Your task to perform on an android device: Play the last video I watched on Youtube Image 0: 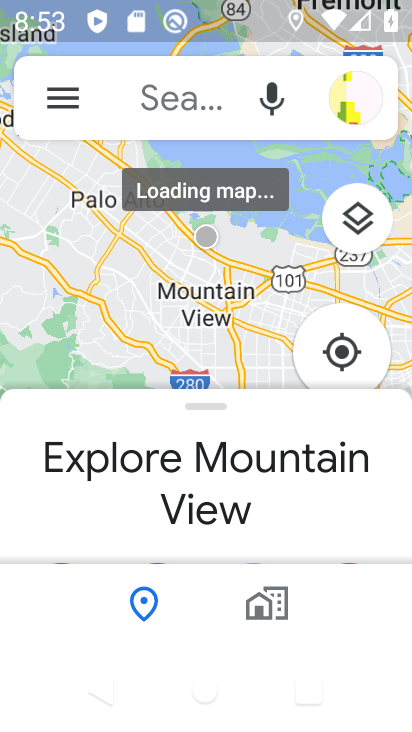
Step 0: press home button
Your task to perform on an android device: Play the last video I watched on Youtube Image 1: 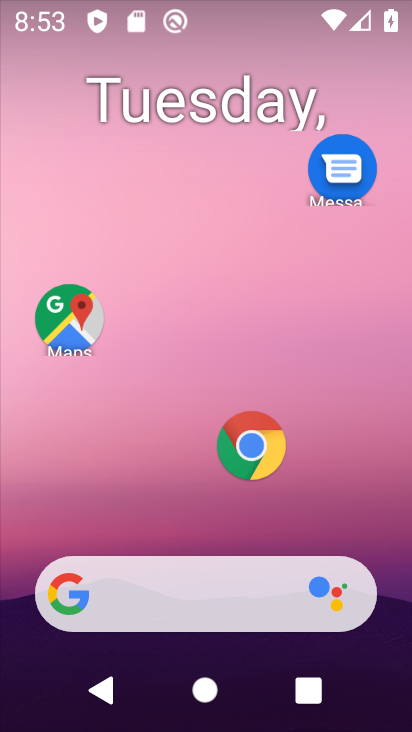
Step 1: drag from (2, 719) to (162, 262)
Your task to perform on an android device: Play the last video I watched on Youtube Image 2: 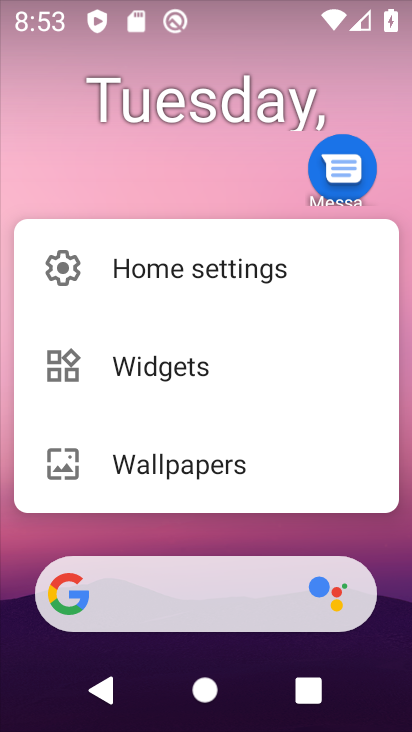
Step 2: drag from (2, 675) to (218, 270)
Your task to perform on an android device: Play the last video I watched on Youtube Image 3: 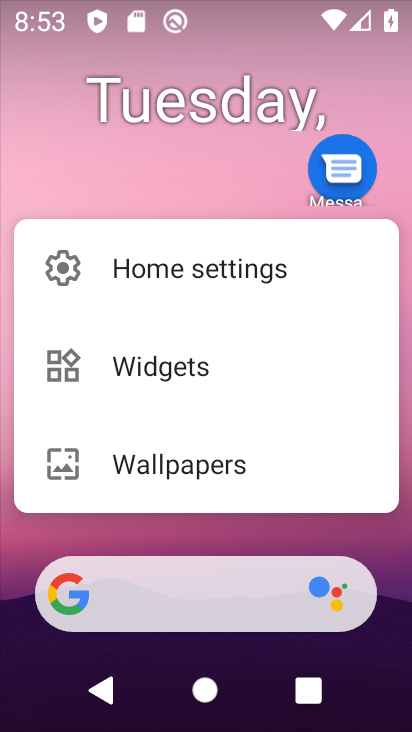
Step 3: press back button
Your task to perform on an android device: Play the last video I watched on Youtube Image 4: 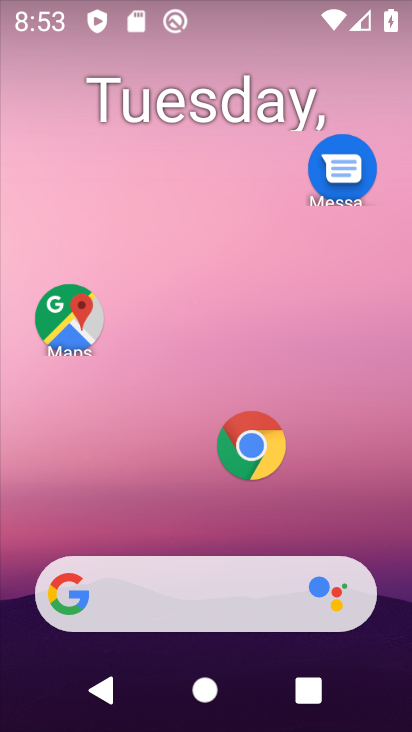
Step 4: drag from (19, 643) to (273, 115)
Your task to perform on an android device: Play the last video I watched on Youtube Image 5: 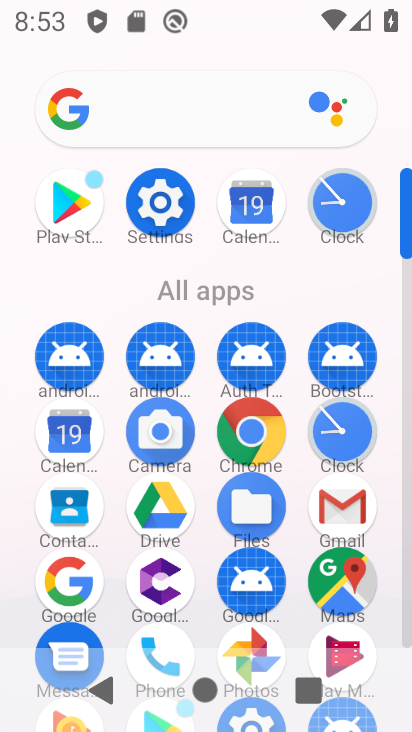
Step 5: drag from (42, 666) to (158, 271)
Your task to perform on an android device: Play the last video I watched on Youtube Image 6: 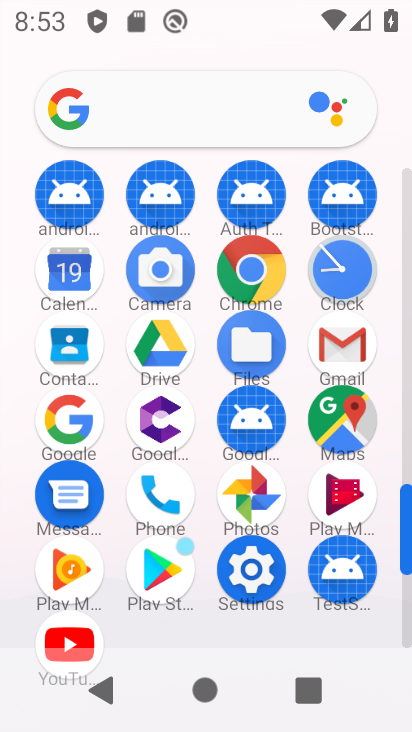
Step 6: click (62, 629)
Your task to perform on an android device: Play the last video I watched on Youtube Image 7: 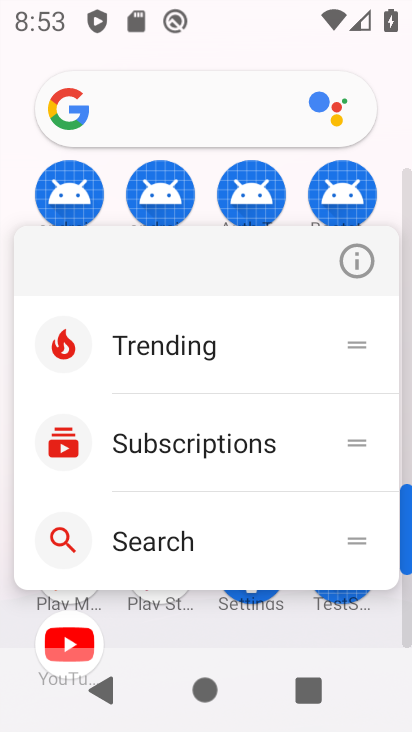
Step 7: click (62, 628)
Your task to perform on an android device: Play the last video I watched on Youtube Image 8: 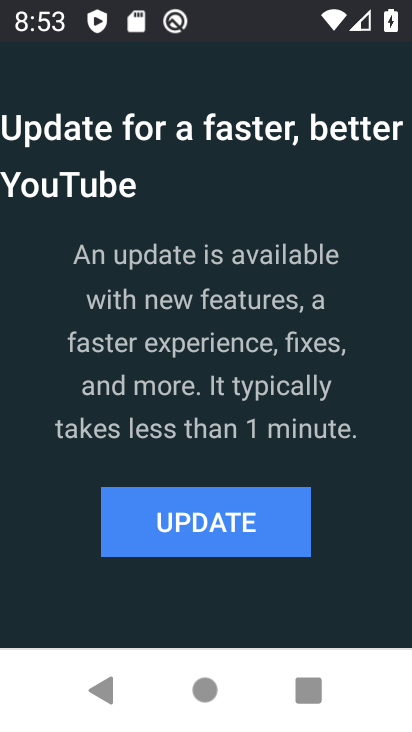
Step 8: click (209, 483)
Your task to perform on an android device: Play the last video I watched on Youtube Image 9: 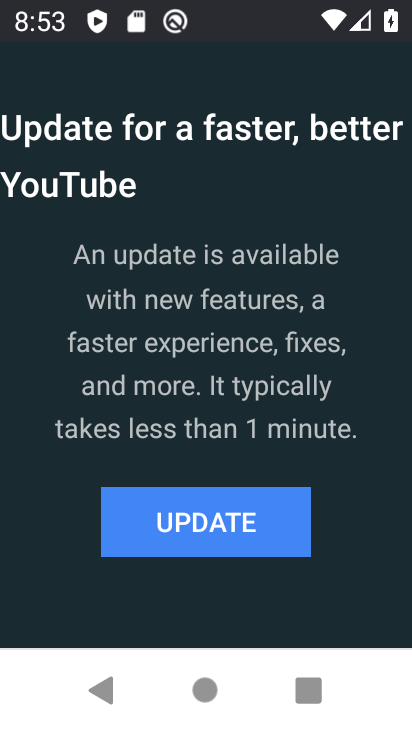
Step 9: click (239, 523)
Your task to perform on an android device: Play the last video I watched on Youtube Image 10: 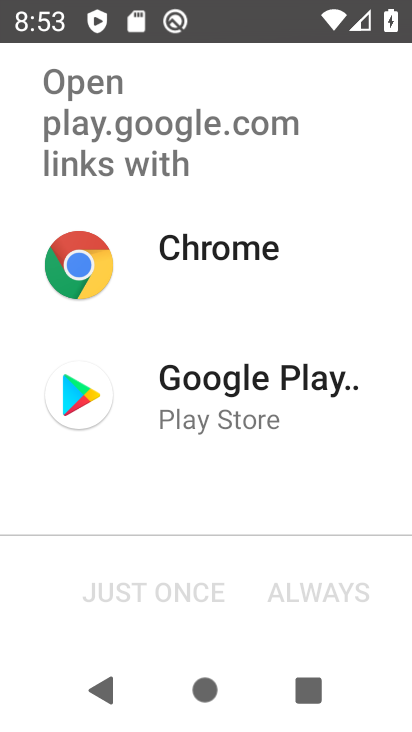
Step 10: press back button
Your task to perform on an android device: Play the last video I watched on Youtube Image 11: 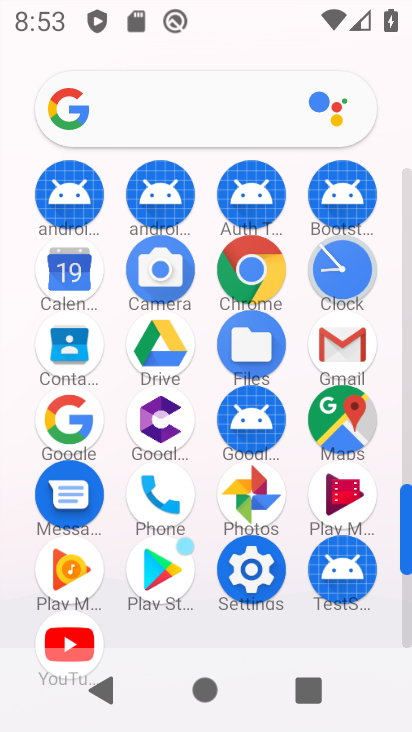
Step 11: click (83, 624)
Your task to perform on an android device: Play the last video I watched on Youtube Image 12: 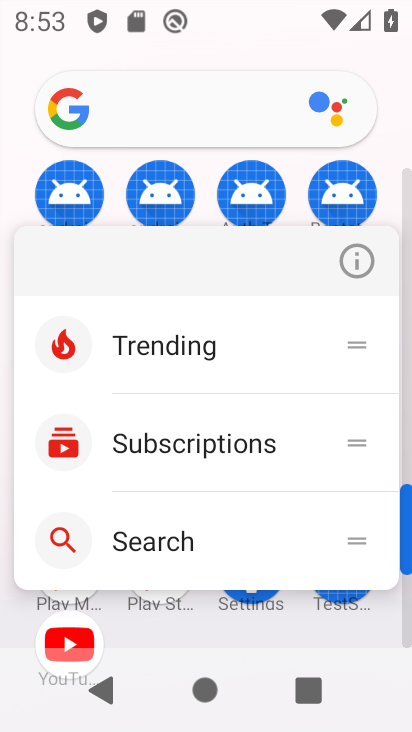
Step 12: click (67, 625)
Your task to perform on an android device: Play the last video I watched on Youtube Image 13: 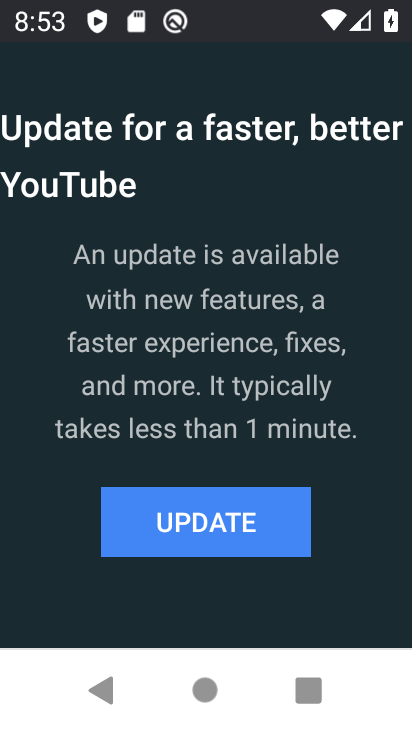
Step 13: task complete